Your task to perform on an android device: move a message to another label in the gmail app Image 0: 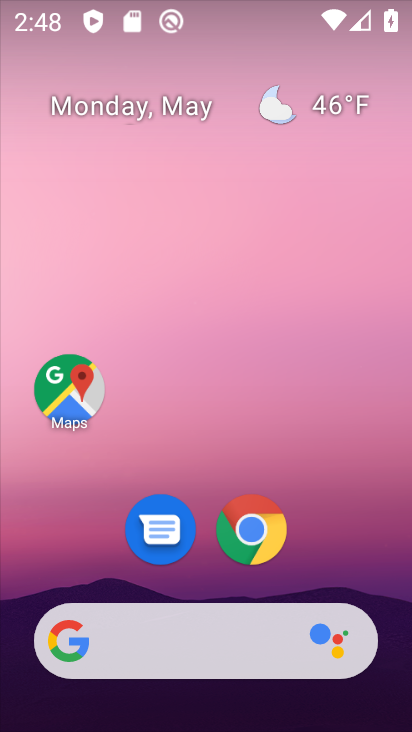
Step 0: drag from (374, 546) to (316, 139)
Your task to perform on an android device: move a message to another label in the gmail app Image 1: 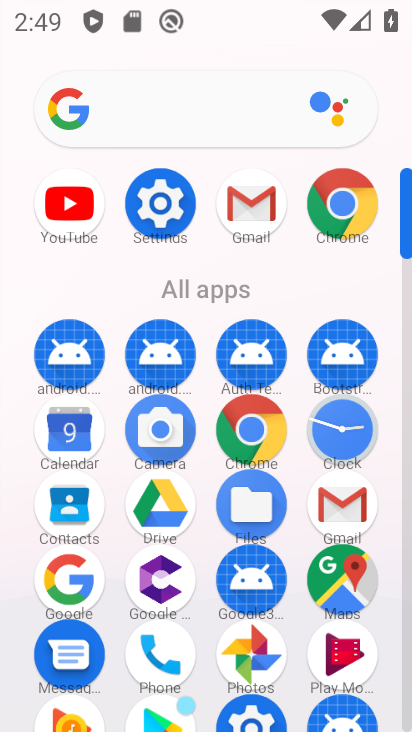
Step 1: click (340, 512)
Your task to perform on an android device: move a message to another label in the gmail app Image 2: 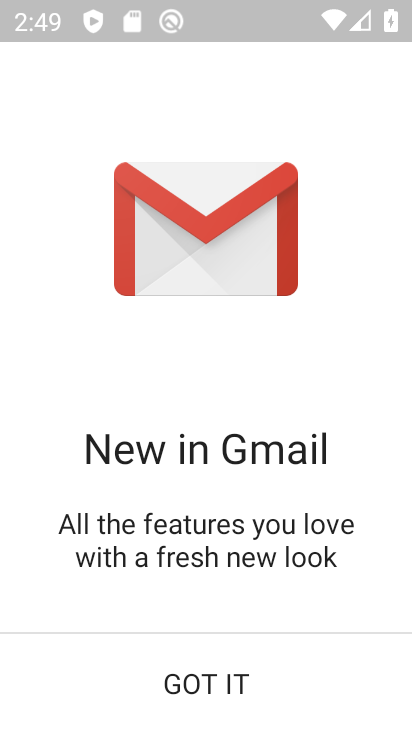
Step 2: click (178, 675)
Your task to perform on an android device: move a message to another label in the gmail app Image 3: 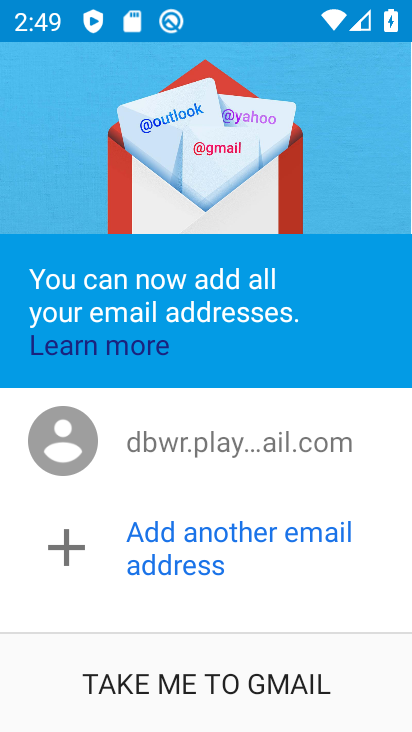
Step 3: click (246, 684)
Your task to perform on an android device: move a message to another label in the gmail app Image 4: 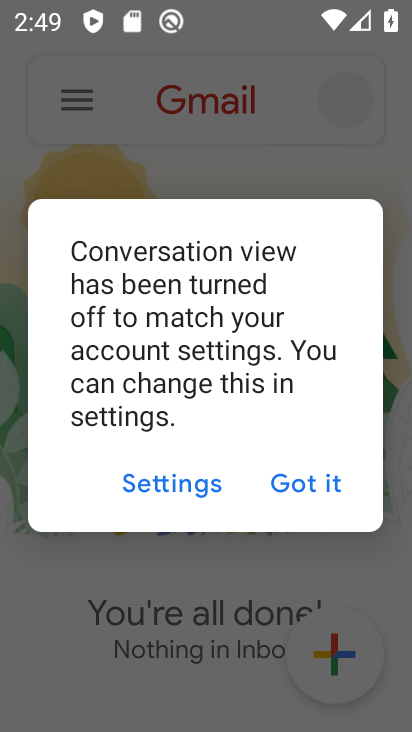
Step 4: click (292, 492)
Your task to perform on an android device: move a message to another label in the gmail app Image 5: 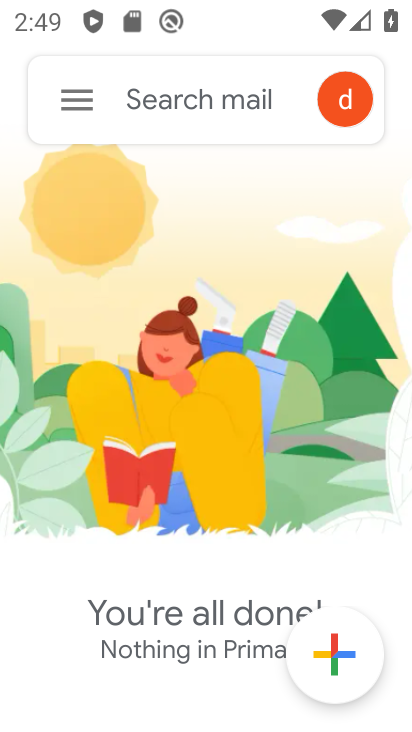
Step 5: click (79, 114)
Your task to perform on an android device: move a message to another label in the gmail app Image 6: 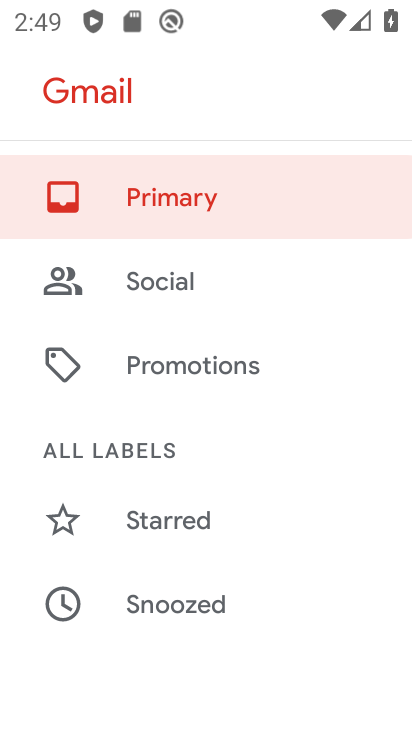
Step 6: drag from (244, 595) to (265, 384)
Your task to perform on an android device: move a message to another label in the gmail app Image 7: 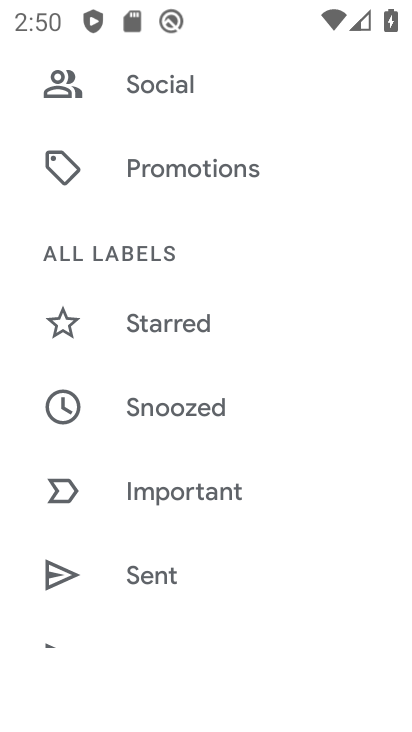
Step 7: drag from (232, 590) to (245, 380)
Your task to perform on an android device: move a message to another label in the gmail app Image 8: 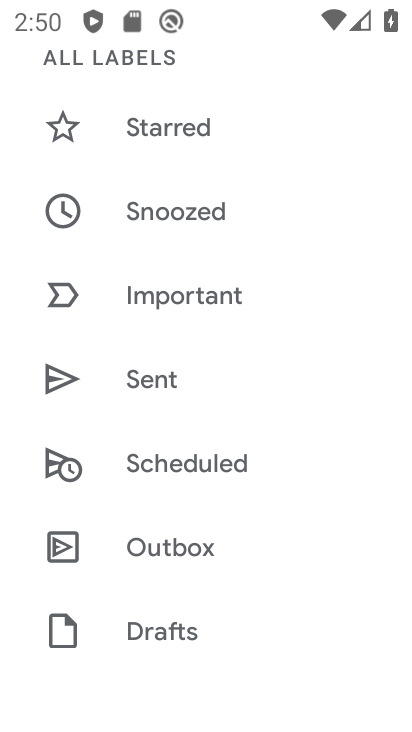
Step 8: drag from (271, 604) to (254, 420)
Your task to perform on an android device: move a message to another label in the gmail app Image 9: 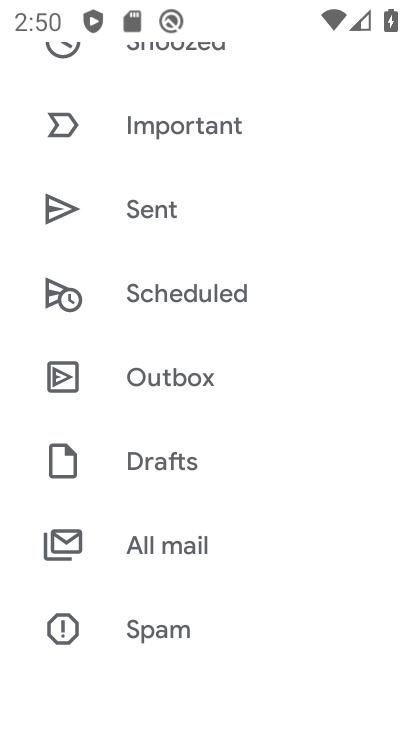
Step 9: drag from (213, 620) to (218, 340)
Your task to perform on an android device: move a message to another label in the gmail app Image 10: 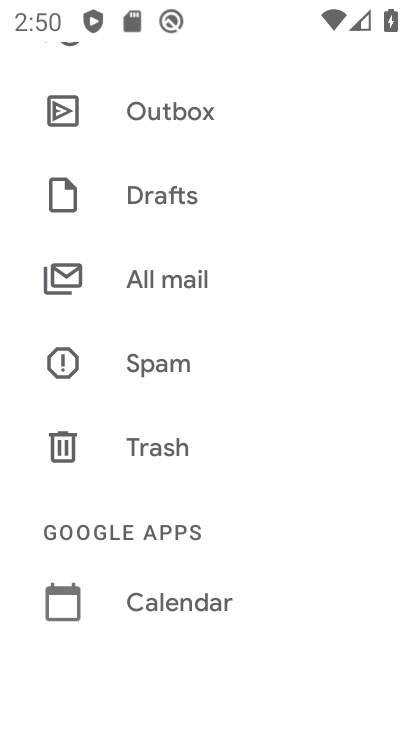
Step 10: drag from (267, 616) to (275, 422)
Your task to perform on an android device: move a message to another label in the gmail app Image 11: 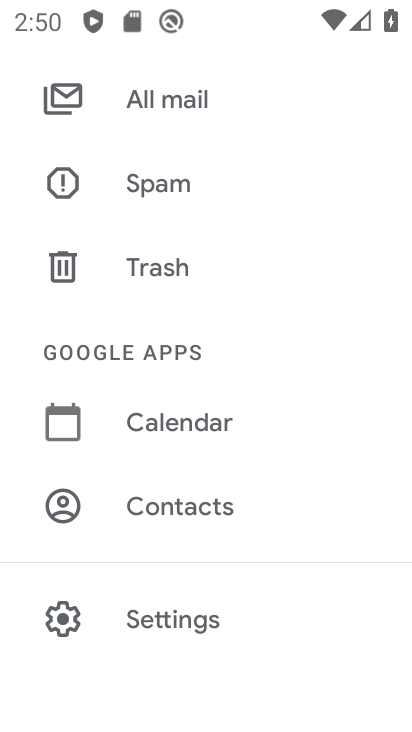
Step 11: click (196, 94)
Your task to perform on an android device: move a message to another label in the gmail app Image 12: 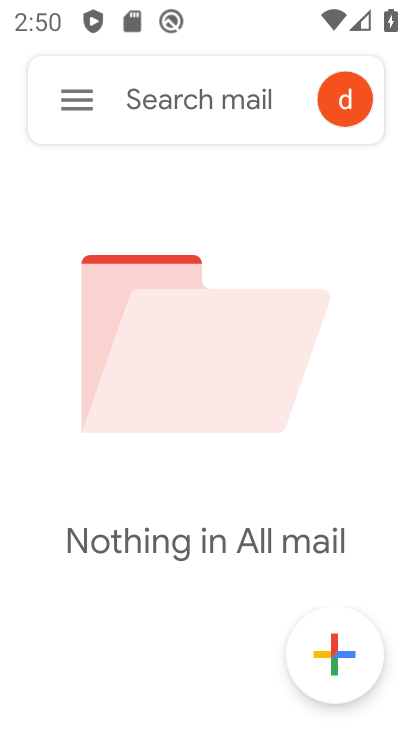
Step 12: task complete